Your task to perform on an android device: change notification settings in the gmail app Image 0: 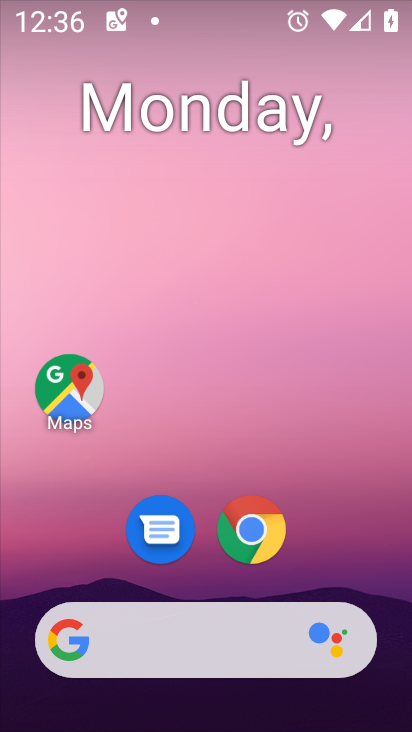
Step 0: drag from (178, 621) to (48, 42)
Your task to perform on an android device: change notification settings in the gmail app Image 1: 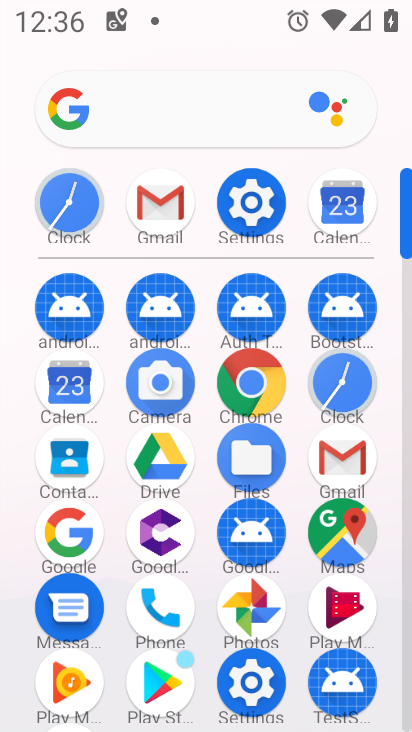
Step 1: click (147, 220)
Your task to perform on an android device: change notification settings in the gmail app Image 2: 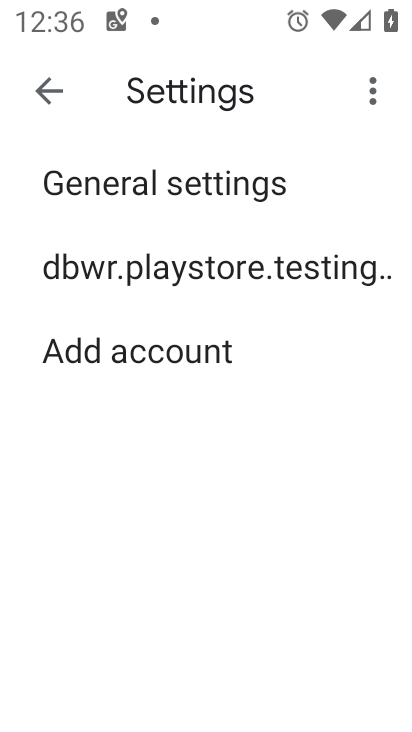
Step 2: click (174, 266)
Your task to perform on an android device: change notification settings in the gmail app Image 3: 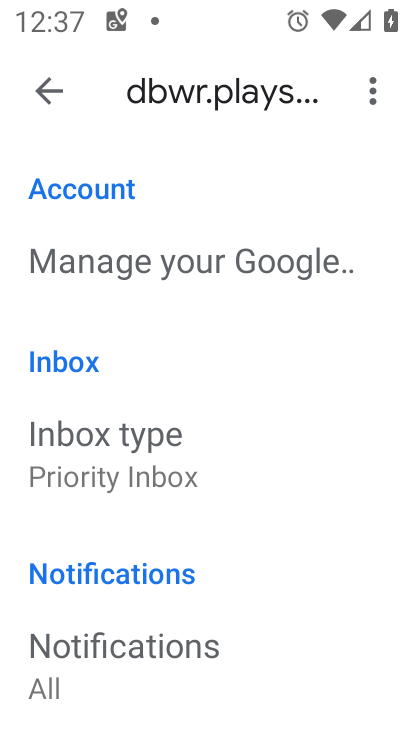
Step 3: drag from (197, 533) to (167, 11)
Your task to perform on an android device: change notification settings in the gmail app Image 4: 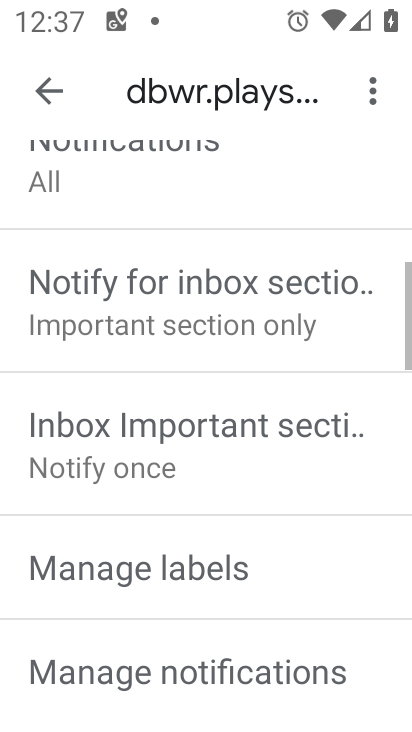
Step 4: drag from (187, 533) to (184, 140)
Your task to perform on an android device: change notification settings in the gmail app Image 5: 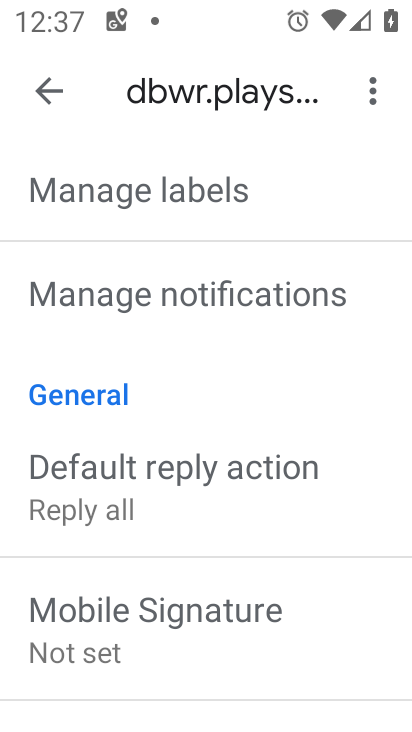
Step 5: click (145, 307)
Your task to perform on an android device: change notification settings in the gmail app Image 6: 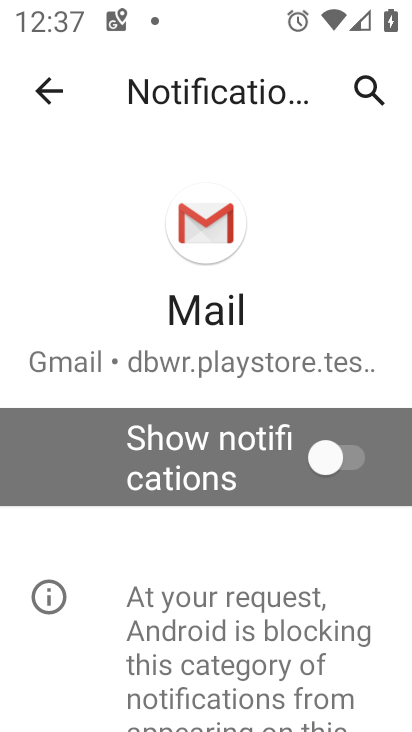
Step 6: click (332, 445)
Your task to perform on an android device: change notification settings in the gmail app Image 7: 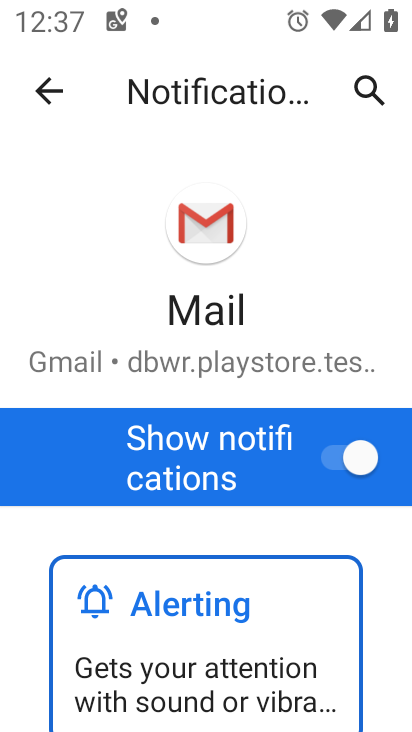
Step 7: task complete